Your task to perform on an android device: Open Reddit.com Image 0: 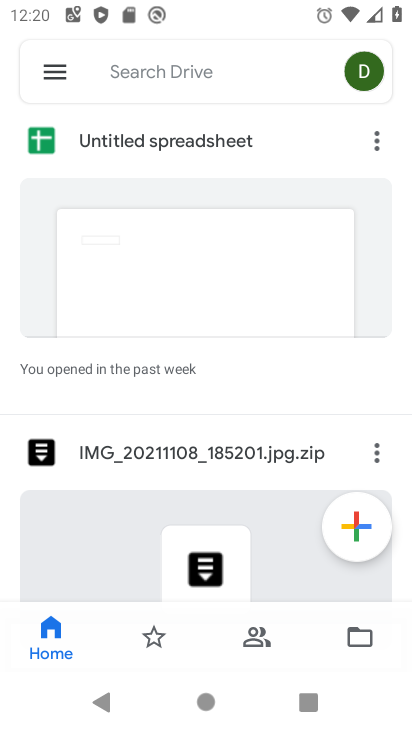
Step 0: press home button
Your task to perform on an android device: Open Reddit.com Image 1: 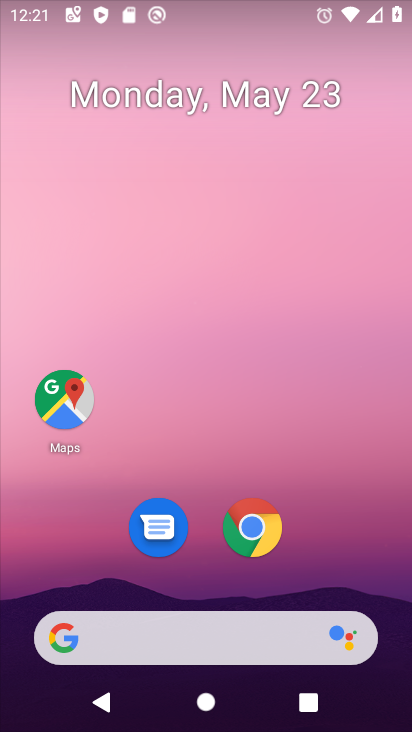
Step 1: click (240, 515)
Your task to perform on an android device: Open Reddit.com Image 2: 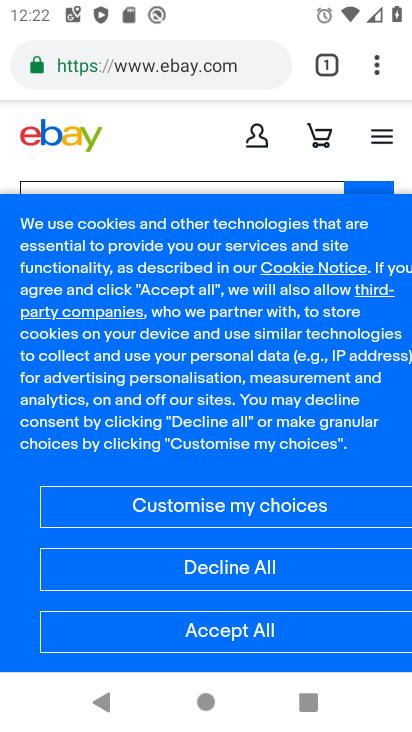
Step 2: click (166, 45)
Your task to perform on an android device: Open Reddit.com Image 3: 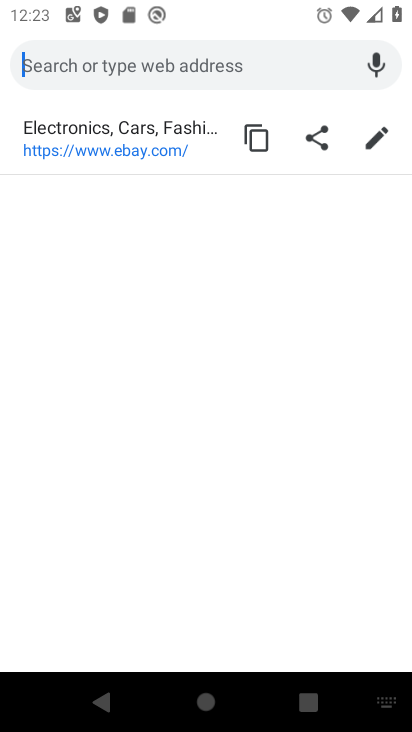
Step 3: type "reddit.com"
Your task to perform on an android device: Open Reddit.com Image 4: 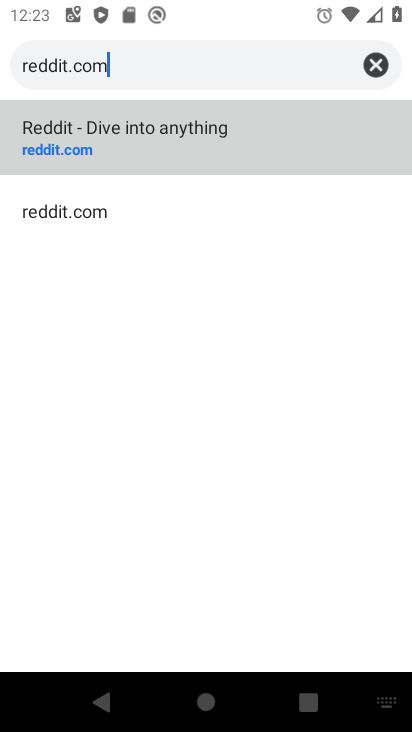
Step 4: click (197, 121)
Your task to perform on an android device: Open Reddit.com Image 5: 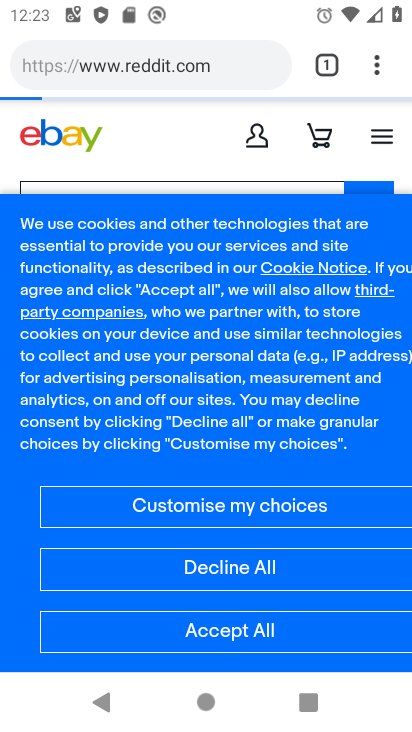
Step 5: task complete